Your task to perform on an android device: Turn off the flashlight Image 0: 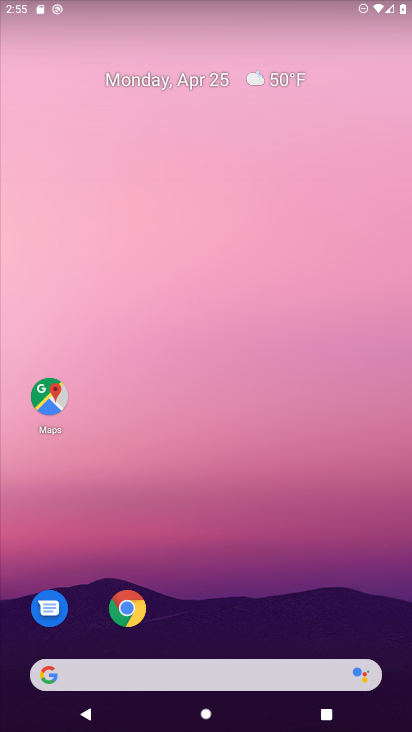
Step 0: press home button
Your task to perform on an android device: Turn off the flashlight Image 1: 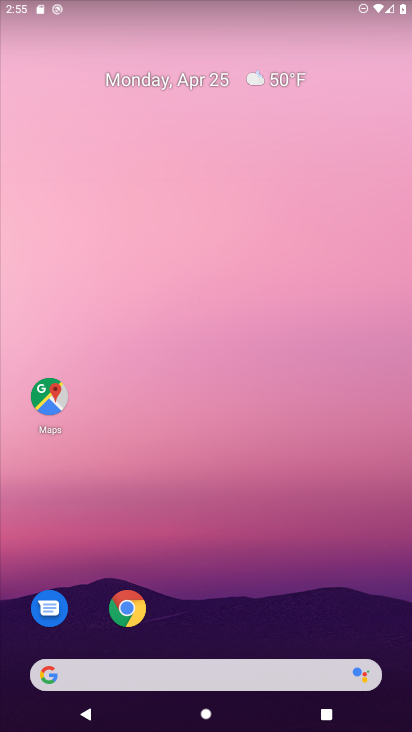
Step 1: drag from (222, 621) to (223, 225)
Your task to perform on an android device: Turn off the flashlight Image 2: 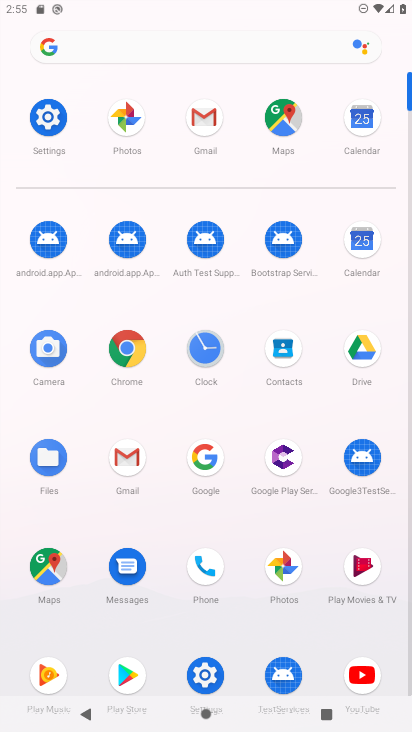
Step 2: click (54, 124)
Your task to perform on an android device: Turn off the flashlight Image 3: 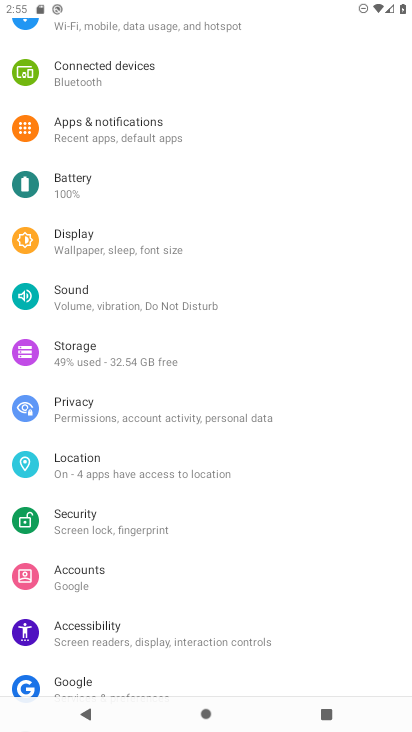
Step 3: task complete